Your task to perform on an android device: Open battery settings Image 0: 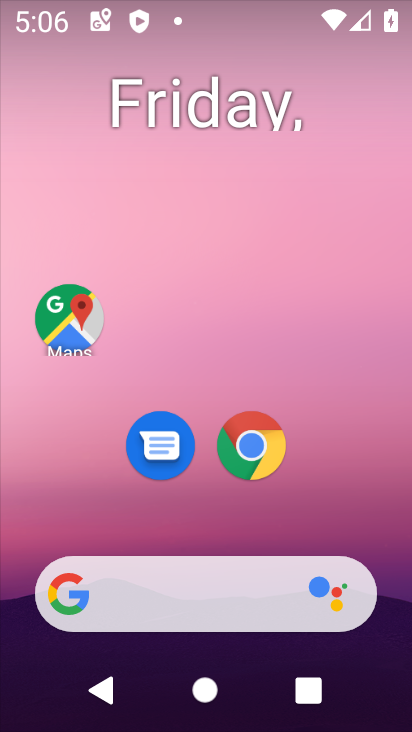
Step 0: drag from (355, 513) to (348, 92)
Your task to perform on an android device: Open battery settings Image 1: 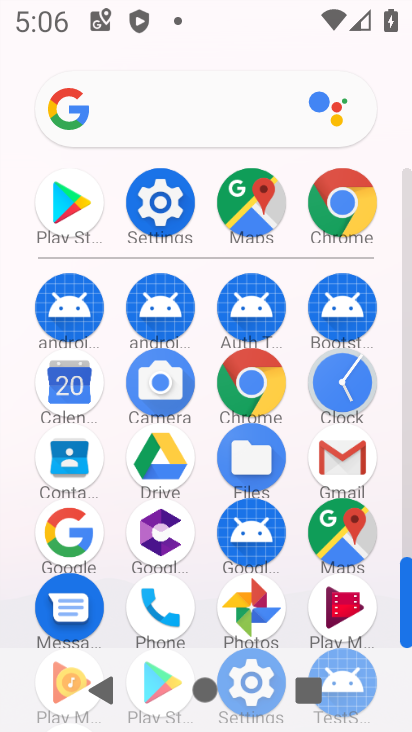
Step 1: click (173, 225)
Your task to perform on an android device: Open battery settings Image 2: 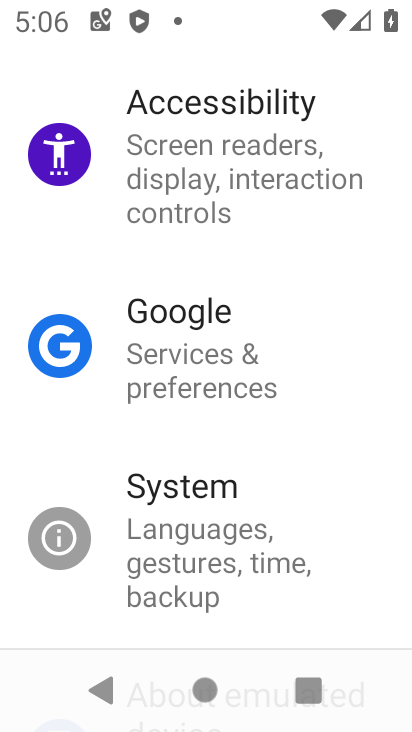
Step 2: drag from (195, 200) to (175, 629)
Your task to perform on an android device: Open battery settings Image 3: 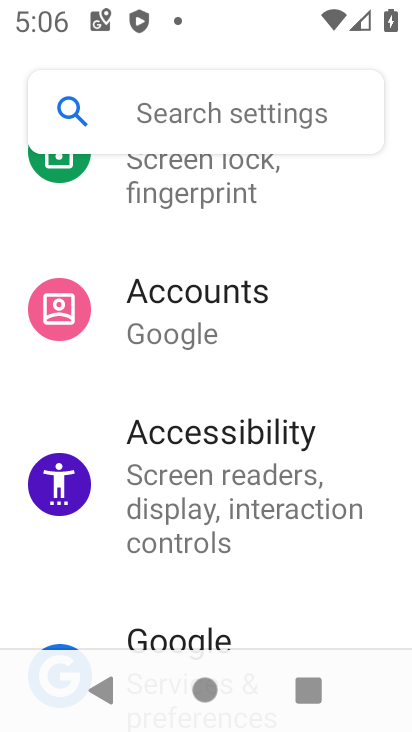
Step 3: drag from (251, 318) to (206, 615)
Your task to perform on an android device: Open battery settings Image 4: 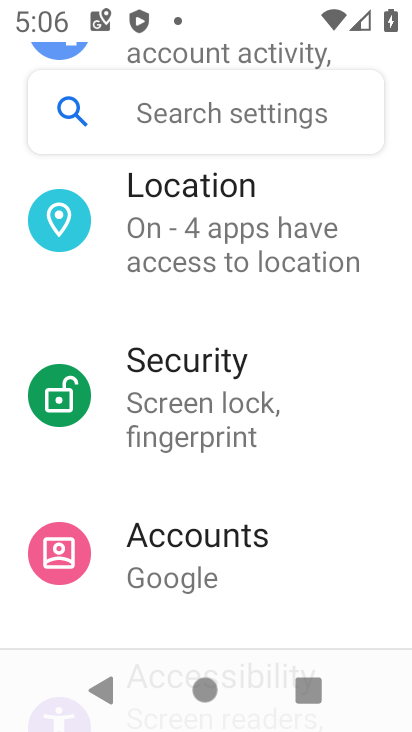
Step 4: drag from (221, 255) to (188, 689)
Your task to perform on an android device: Open battery settings Image 5: 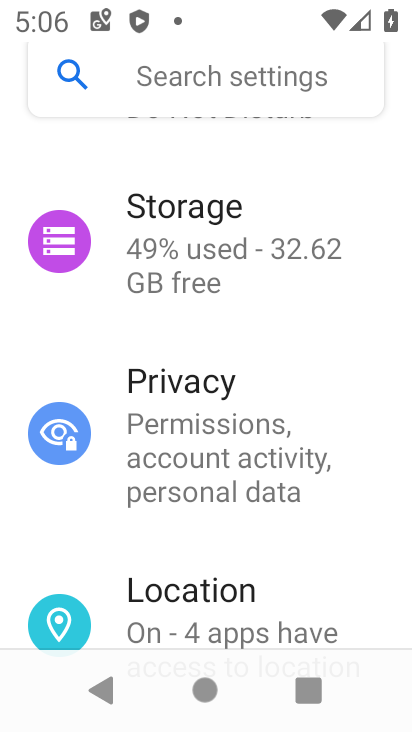
Step 5: drag from (235, 383) to (205, 728)
Your task to perform on an android device: Open battery settings Image 6: 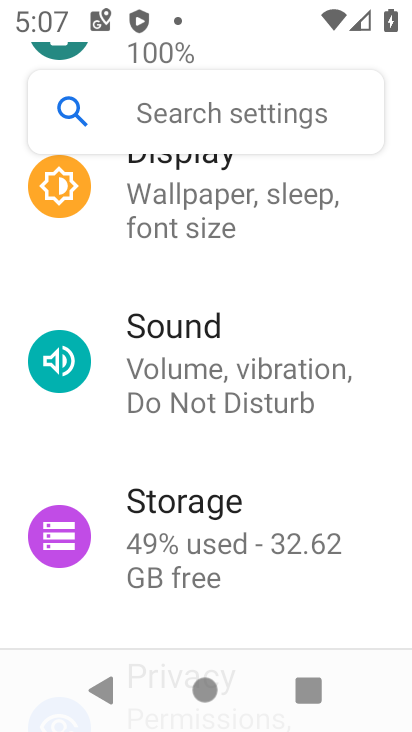
Step 6: drag from (256, 218) to (207, 717)
Your task to perform on an android device: Open battery settings Image 7: 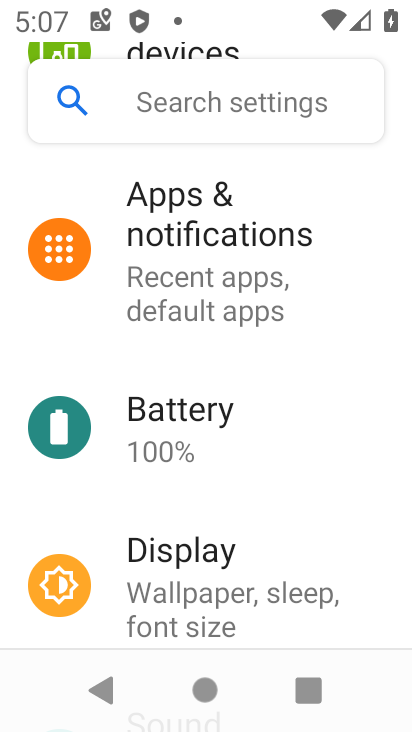
Step 7: click (219, 447)
Your task to perform on an android device: Open battery settings Image 8: 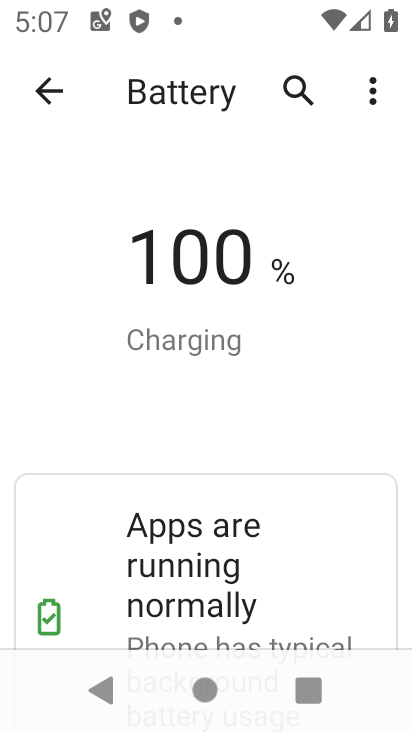
Step 8: task complete